Your task to perform on an android device: What is the news today? Image 0: 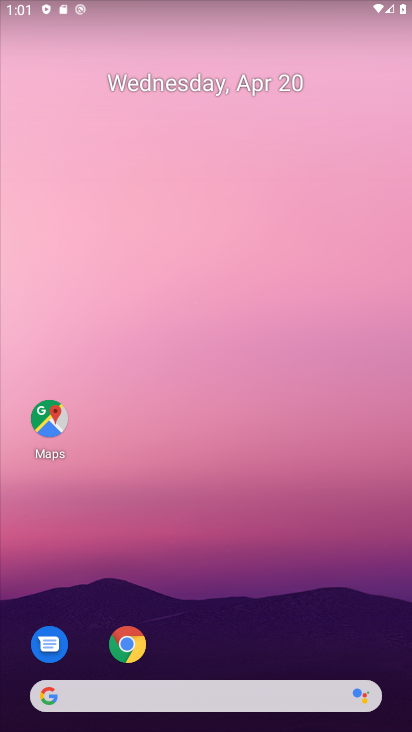
Step 0: click (48, 695)
Your task to perform on an android device: What is the news today? Image 1: 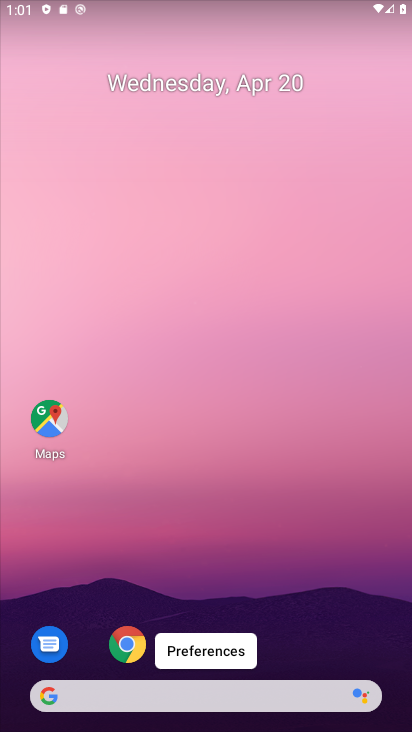
Step 1: click (50, 700)
Your task to perform on an android device: What is the news today? Image 2: 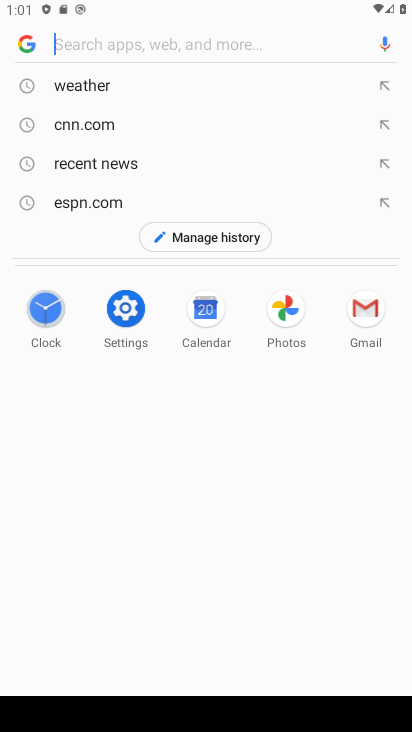
Step 2: click (29, 46)
Your task to perform on an android device: What is the news today? Image 3: 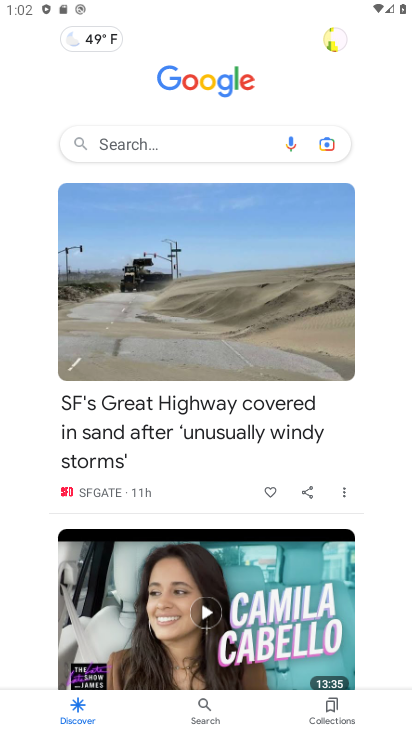
Step 3: task complete